Your task to perform on an android device: Open Google Image 0: 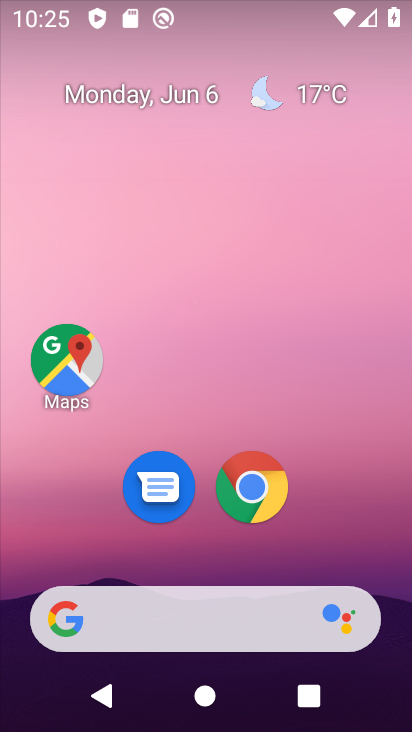
Step 0: click (255, 489)
Your task to perform on an android device: Open Google Image 1: 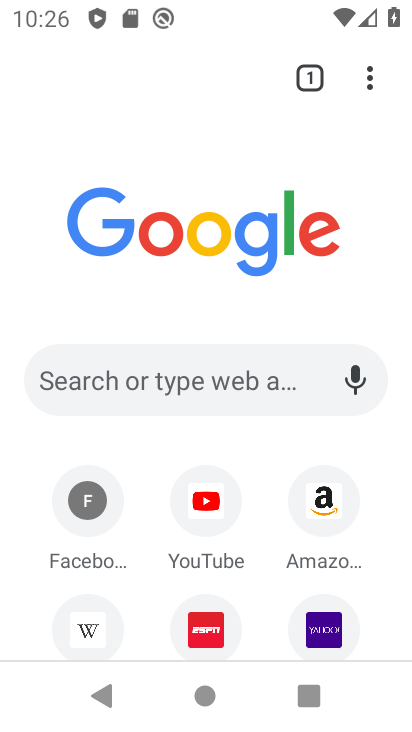
Step 1: task complete